Your task to perform on an android device: toggle javascript in the chrome app Image 0: 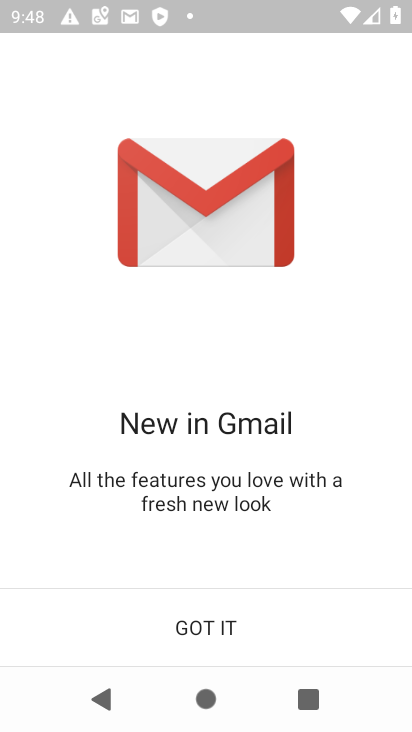
Step 0: press back button
Your task to perform on an android device: toggle javascript in the chrome app Image 1: 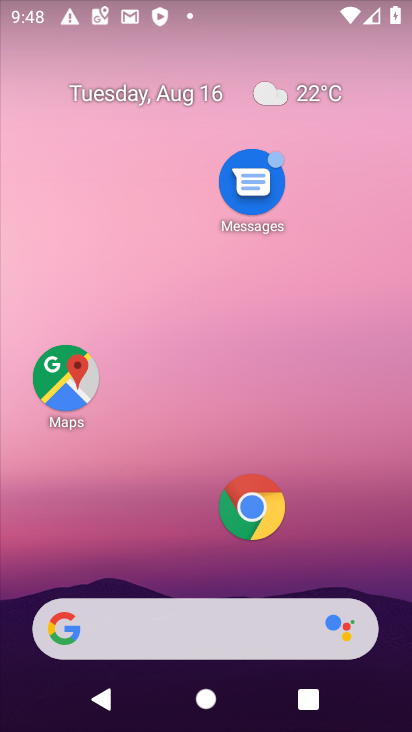
Step 1: click (266, 486)
Your task to perform on an android device: toggle javascript in the chrome app Image 2: 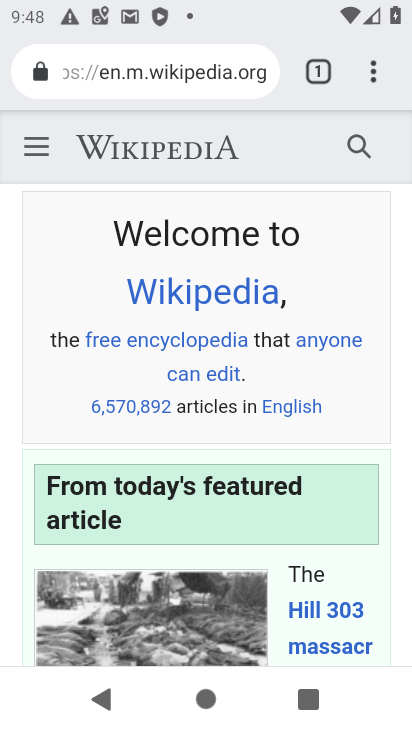
Step 2: drag from (373, 73) to (135, 491)
Your task to perform on an android device: toggle javascript in the chrome app Image 3: 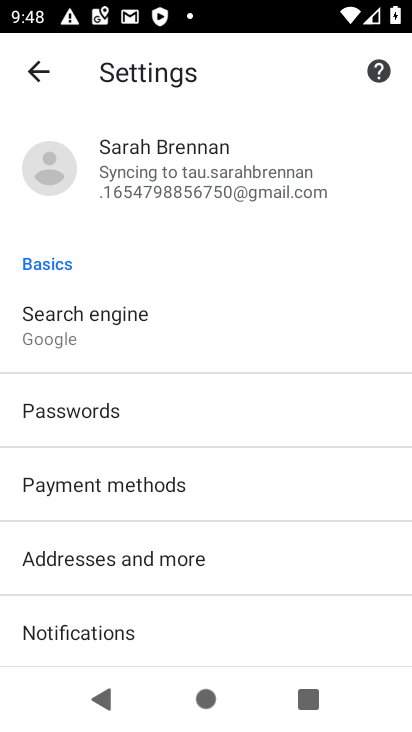
Step 3: drag from (138, 595) to (266, 91)
Your task to perform on an android device: toggle javascript in the chrome app Image 4: 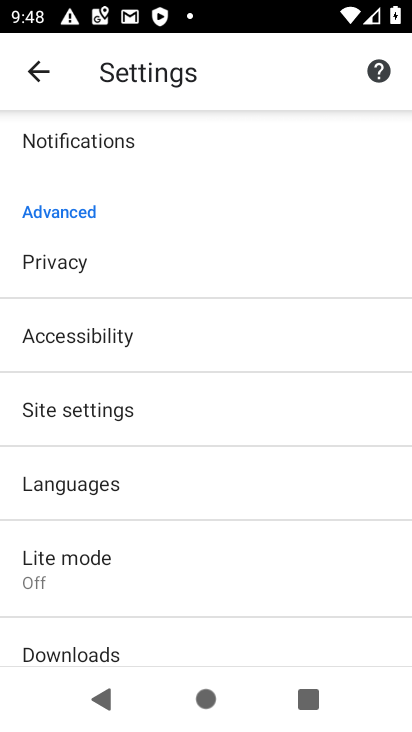
Step 4: drag from (174, 561) to (305, 115)
Your task to perform on an android device: toggle javascript in the chrome app Image 5: 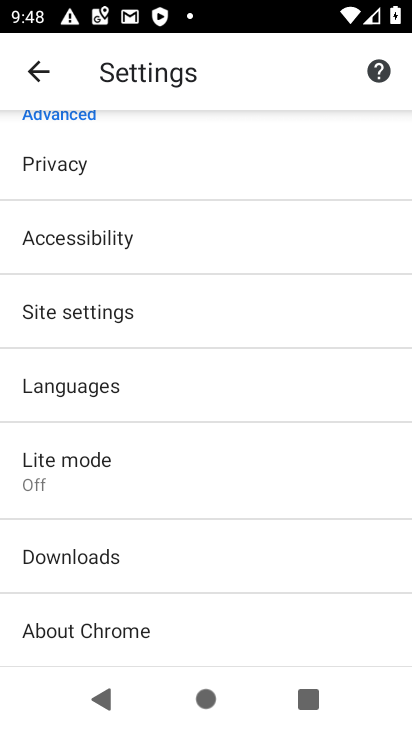
Step 5: click (76, 312)
Your task to perform on an android device: toggle javascript in the chrome app Image 6: 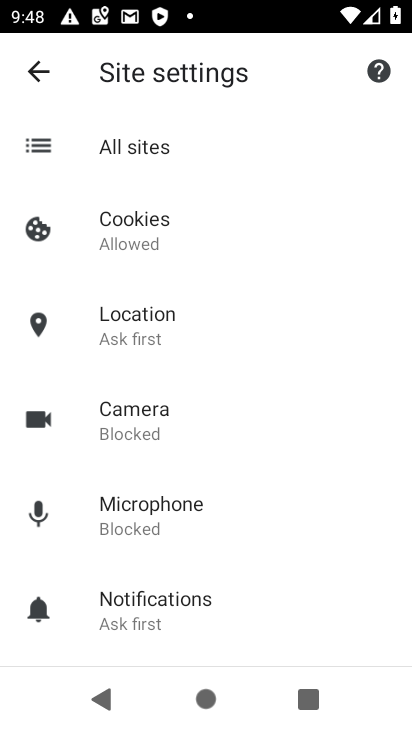
Step 6: drag from (174, 595) to (296, 135)
Your task to perform on an android device: toggle javascript in the chrome app Image 7: 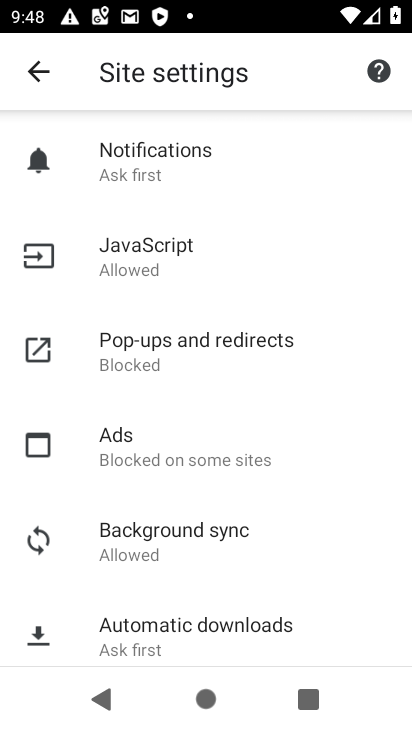
Step 7: click (133, 269)
Your task to perform on an android device: toggle javascript in the chrome app Image 8: 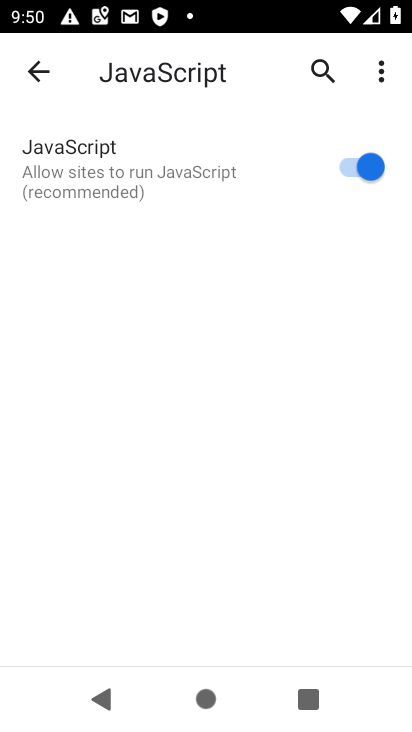
Step 8: task complete